Your task to perform on an android device: Search for sushi restaurants on Maps Image 0: 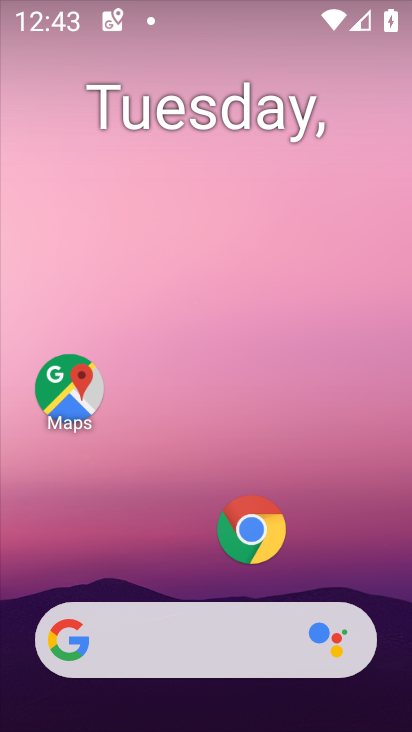
Step 0: click (61, 382)
Your task to perform on an android device: Search for sushi restaurants on Maps Image 1: 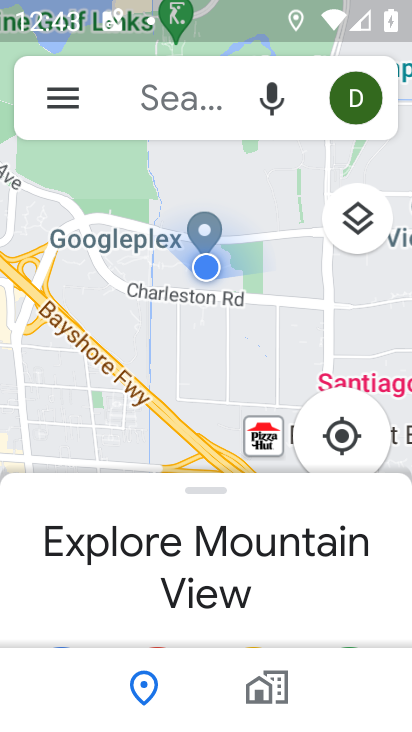
Step 1: click (164, 96)
Your task to perform on an android device: Search for sushi restaurants on Maps Image 2: 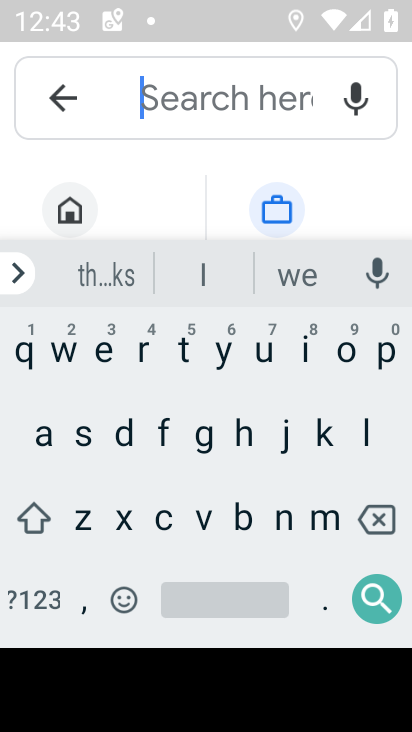
Step 2: click (84, 441)
Your task to perform on an android device: Search for sushi restaurants on Maps Image 3: 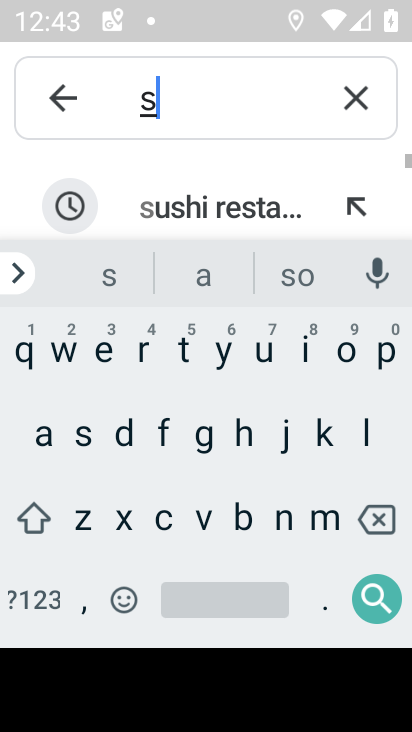
Step 3: click (267, 351)
Your task to perform on an android device: Search for sushi restaurants on Maps Image 4: 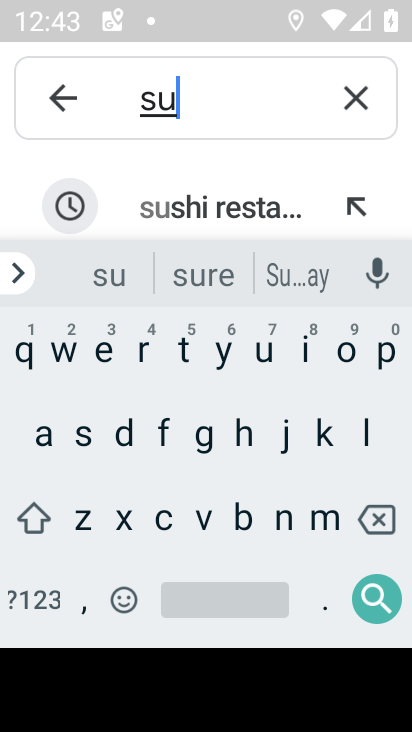
Step 4: click (211, 201)
Your task to perform on an android device: Search for sushi restaurants on Maps Image 5: 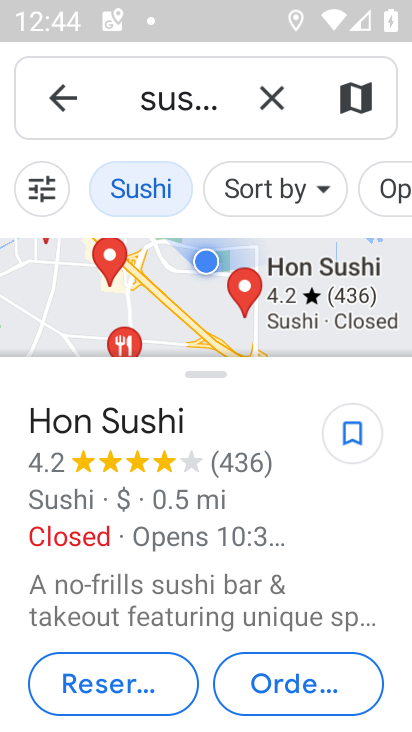
Step 5: task complete